Your task to perform on an android device: change notification settings in the gmail app Image 0: 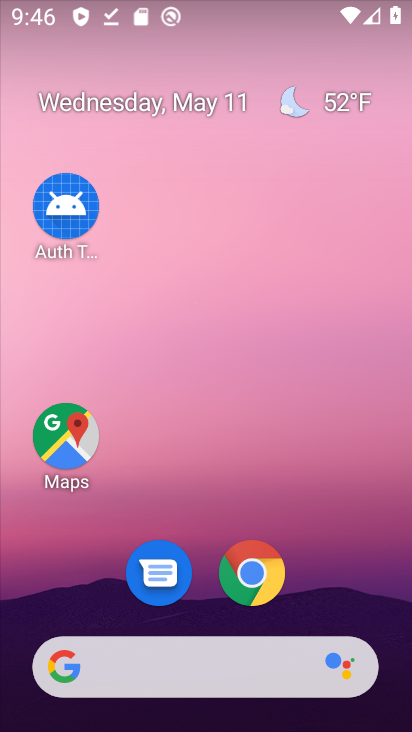
Step 0: drag from (369, 619) to (177, 19)
Your task to perform on an android device: change notification settings in the gmail app Image 1: 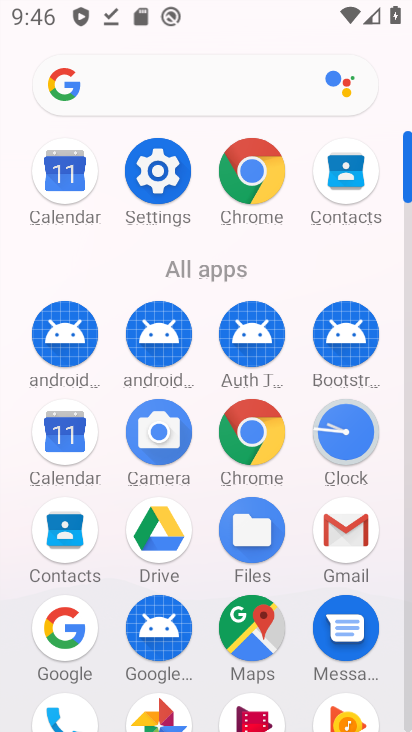
Step 1: click (353, 530)
Your task to perform on an android device: change notification settings in the gmail app Image 2: 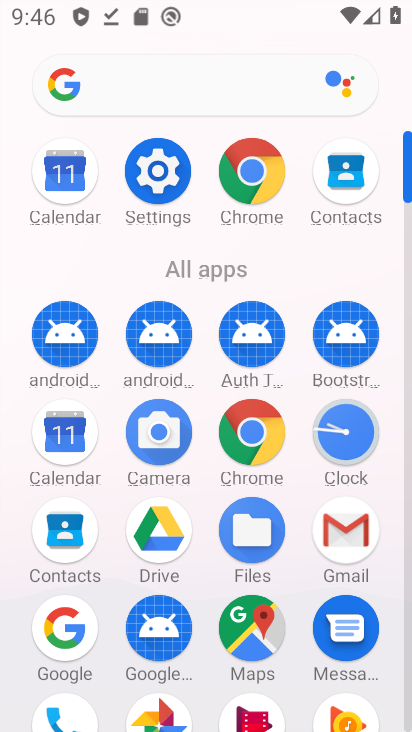
Step 2: click (350, 531)
Your task to perform on an android device: change notification settings in the gmail app Image 3: 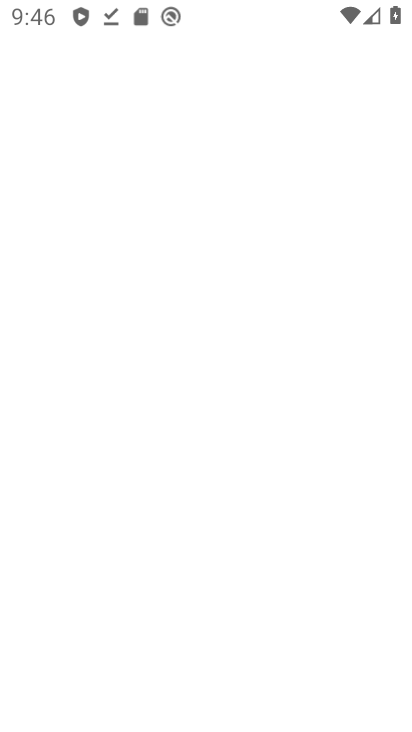
Step 3: click (350, 531)
Your task to perform on an android device: change notification settings in the gmail app Image 4: 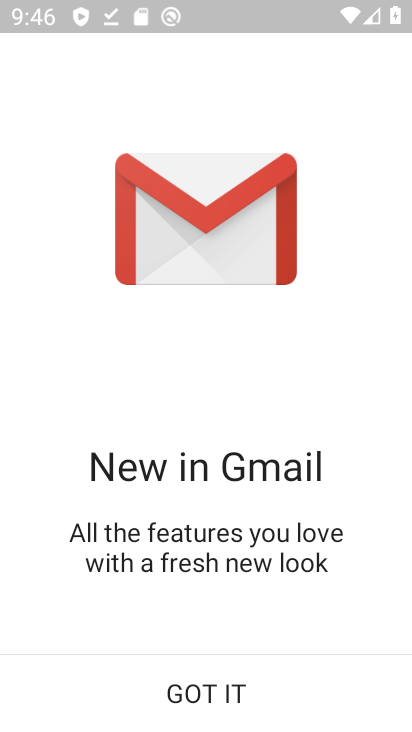
Step 4: click (236, 681)
Your task to perform on an android device: change notification settings in the gmail app Image 5: 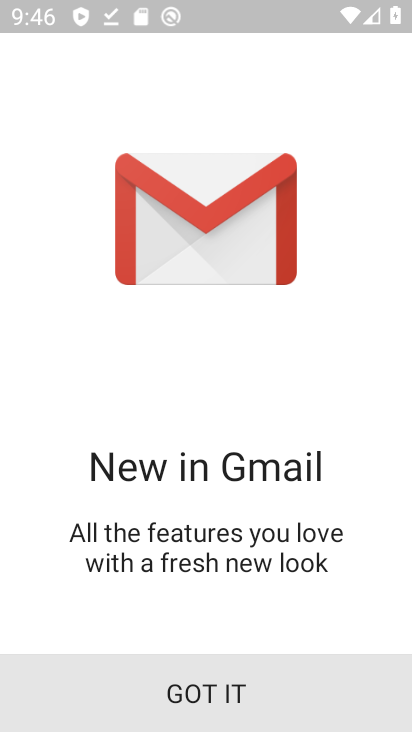
Step 5: click (234, 683)
Your task to perform on an android device: change notification settings in the gmail app Image 6: 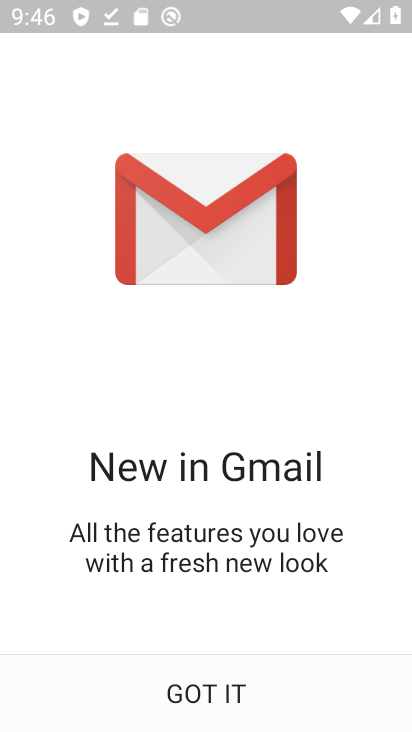
Step 6: click (233, 683)
Your task to perform on an android device: change notification settings in the gmail app Image 7: 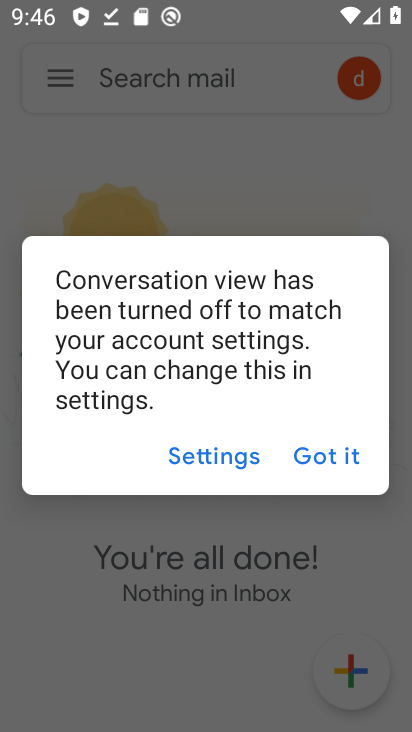
Step 7: click (339, 452)
Your task to perform on an android device: change notification settings in the gmail app Image 8: 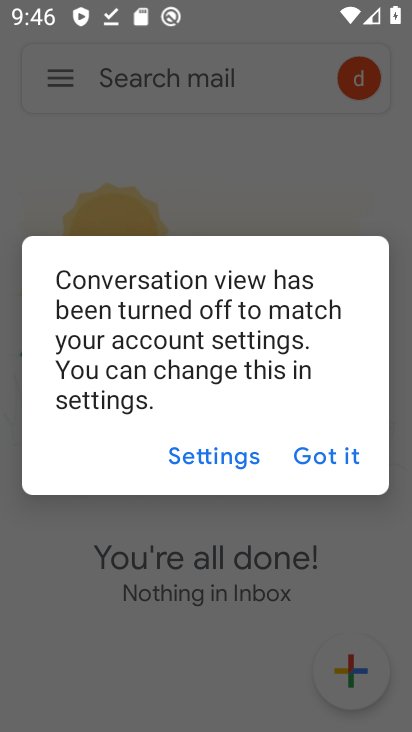
Step 8: click (341, 451)
Your task to perform on an android device: change notification settings in the gmail app Image 9: 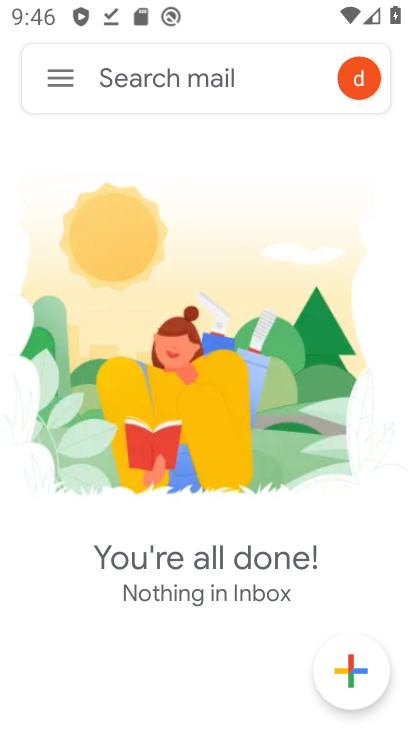
Step 9: click (341, 451)
Your task to perform on an android device: change notification settings in the gmail app Image 10: 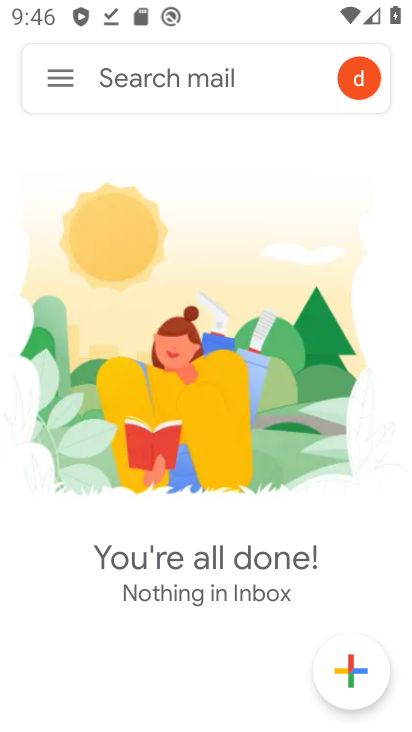
Step 10: click (341, 451)
Your task to perform on an android device: change notification settings in the gmail app Image 11: 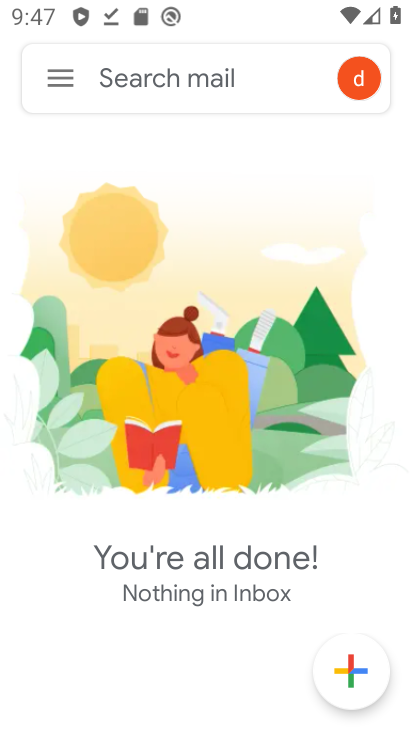
Step 11: click (63, 86)
Your task to perform on an android device: change notification settings in the gmail app Image 12: 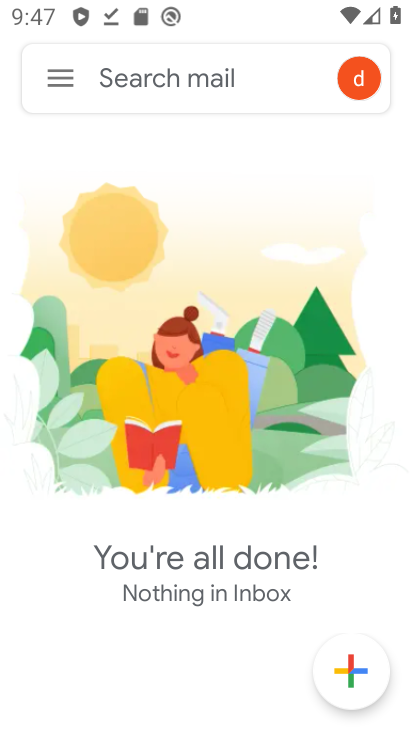
Step 12: click (63, 86)
Your task to perform on an android device: change notification settings in the gmail app Image 13: 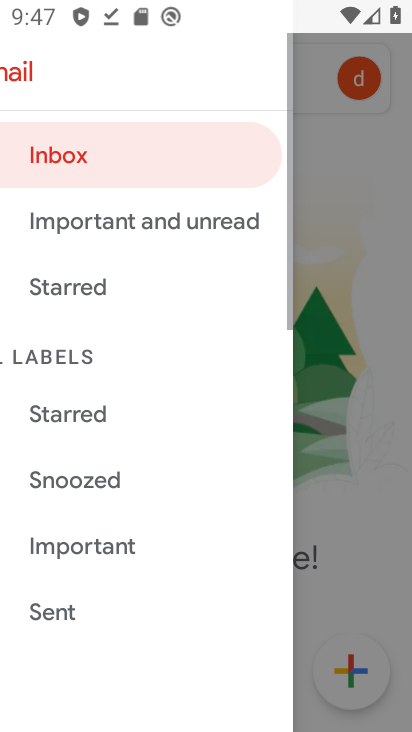
Step 13: click (63, 86)
Your task to perform on an android device: change notification settings in the gmail app Image 14: 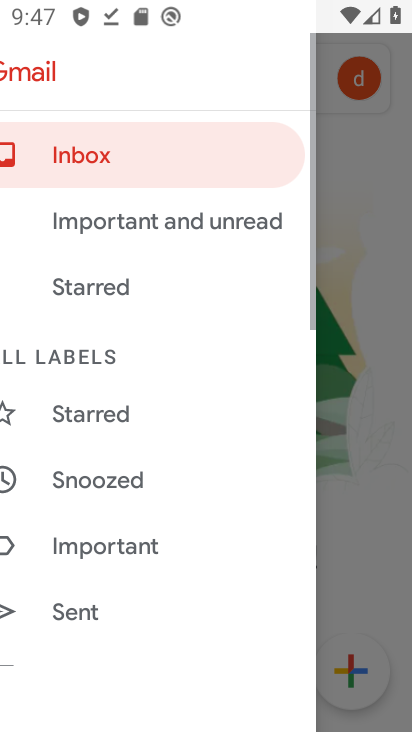
Step 14: click (63, 86)
Your task to perform on an android device: change notification settings in the gmail app Image 15: 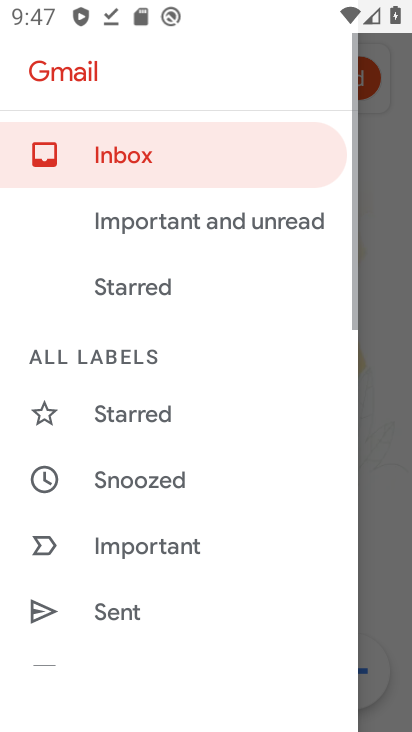
Step 15: click (63, 86)
Your task to perform on an android device: change notification settings in the gmail app Image 16: 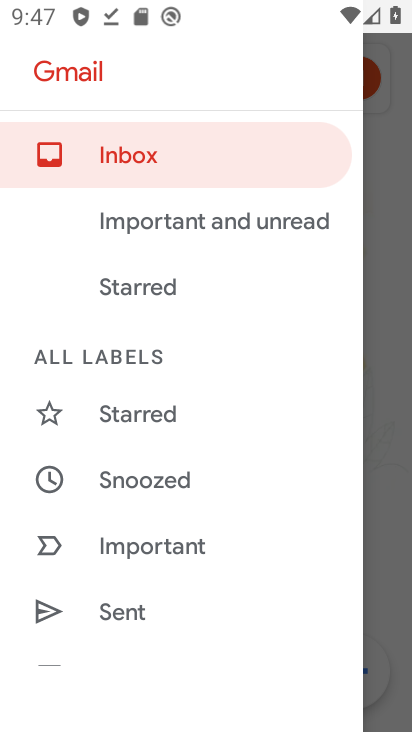
Step 16: drag from (168, 501) to (140, 38)
Your task to perform on an android device: change notification settings in the gmail app Image 17: 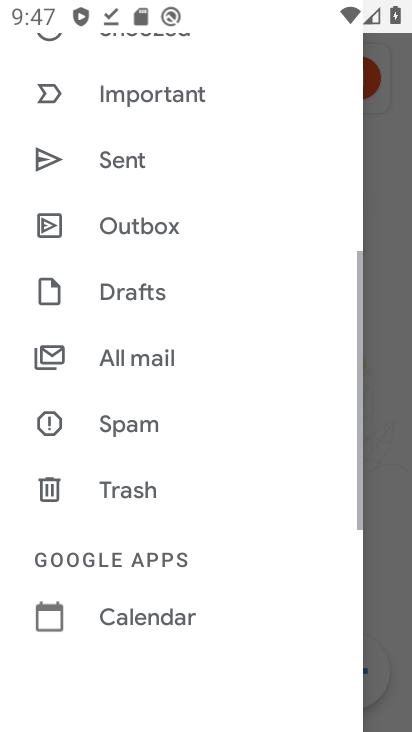
Step 17: drag from (203, 278) to (205, 10)
Your task to perform on an android device: change notification settings in the gmail app Image 18: 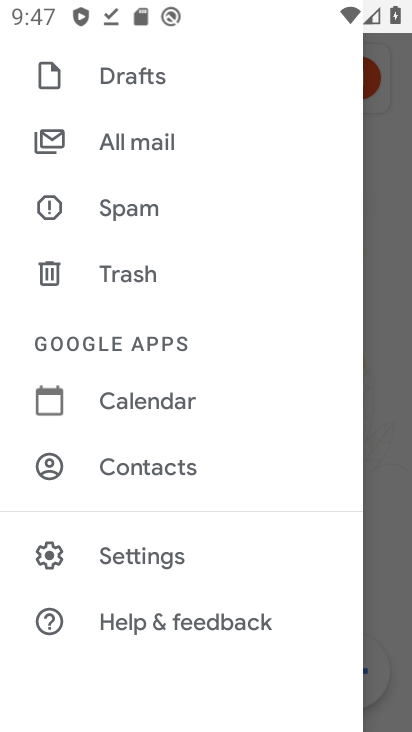
Step 18: click (143, 549)
Your task to perform on an android device: change notification settings in the gmail app Image 19: 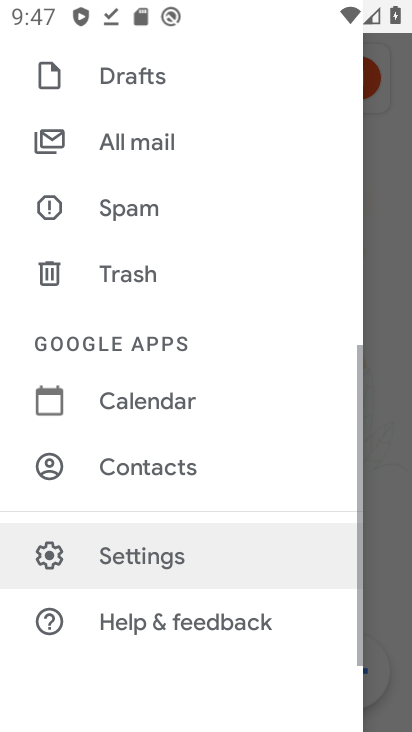
Step 19: click (144, 550)
Your task to perform on an android device: change notification settings in the gmail app Image 20: 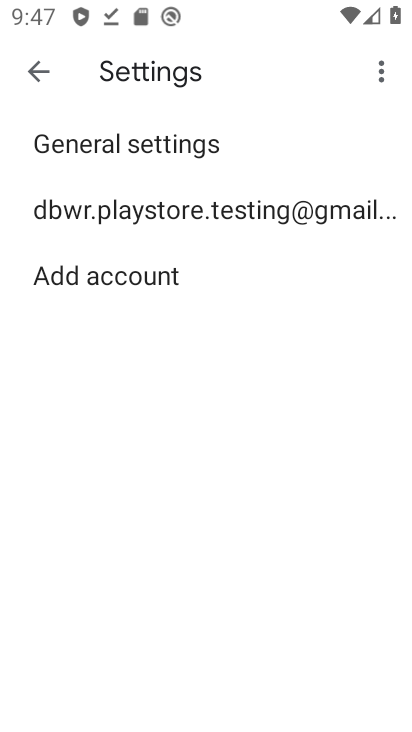
Step 20: click (173, 201)
Your task to perform on an android device: change notification settings in the gmail app Image 21: 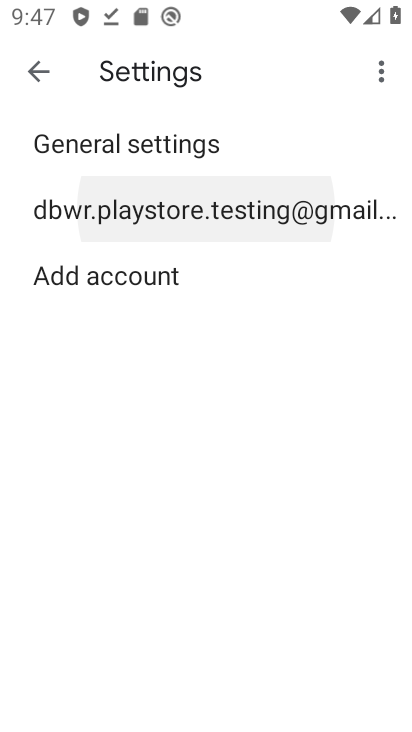
Step 21: click (173, 201)
Your task to perform on an android device: change notification settings in the gmail app Image 22: 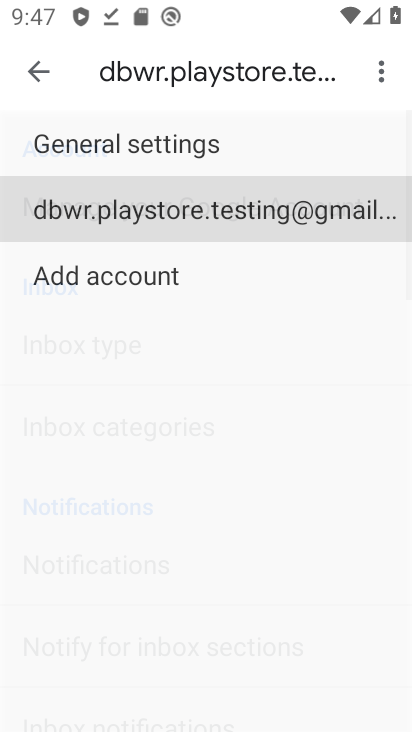
Step 22: click (173, 201)
Your task to perform on an android device: change notification settings in the gmail app Image 23: 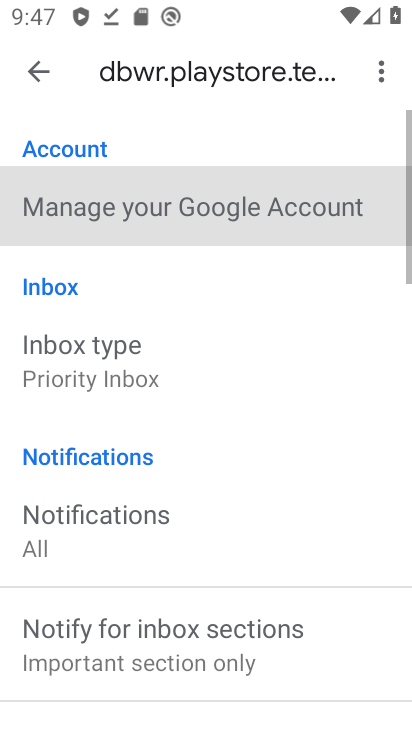
Step 23: click (173, 201)
Your task to perform on an android device: change notification settings in the gmail app Image 24: 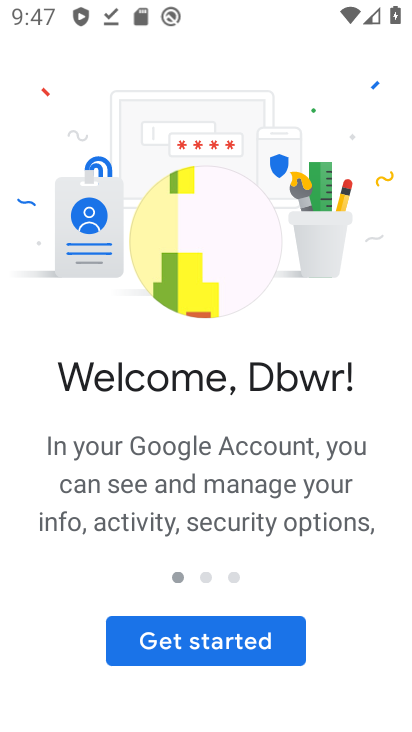
Step 24: click (235, 659)
Your task to perform on an android device: change notification settings in the gmail app Image 25: 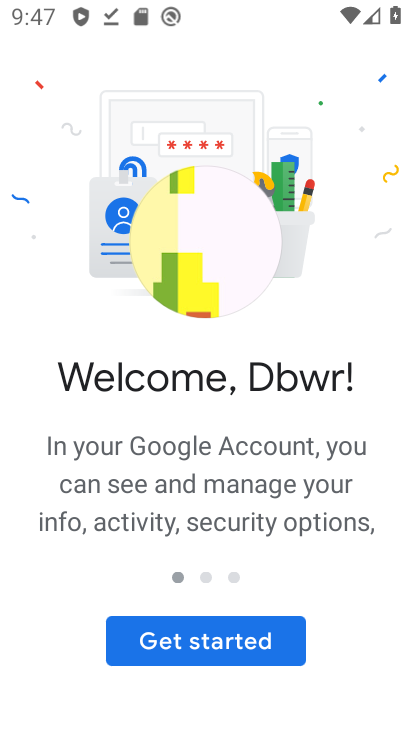
Step 25: click (240, 637)
Your task to perform on an android device: change notification settings in the gmail app Image 26: 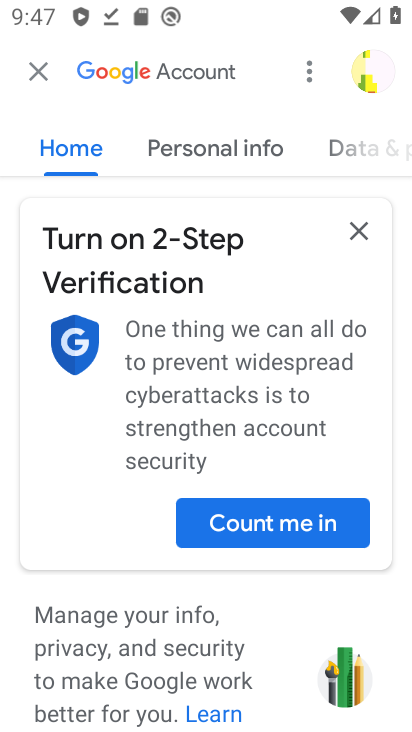
Step 26: click (29, 70)
Your task to perform on an android device: change notification settings in the gmail app Image 27: 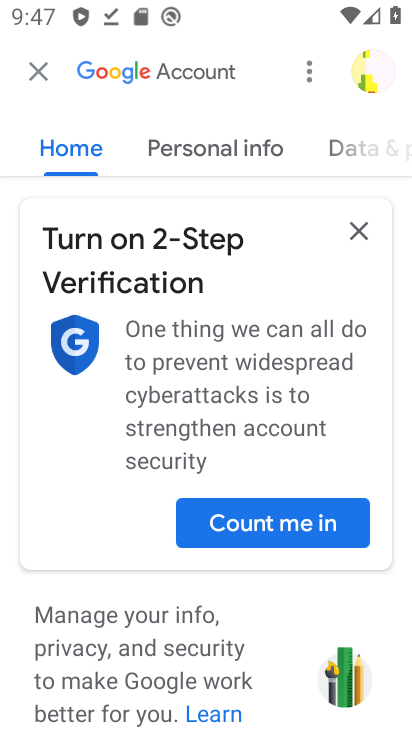
Step 27: click (34, 75)
Your task to perform on an android device: change notification settings in the gmail app Image 28: 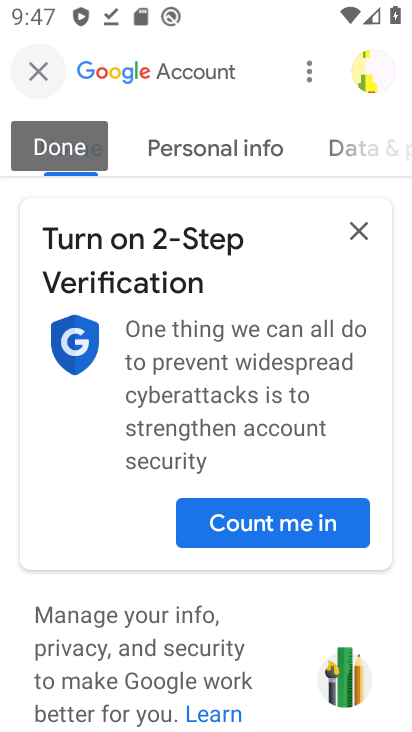
Step 28: click (39, 72)
Your task to perform on an android device: change notification settings in the gmail app Image 29: 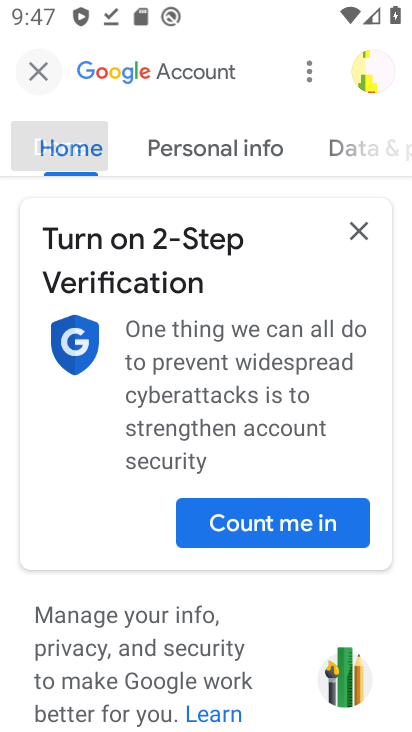
Step 29: click (39, 72)
Your task to perform on an android device: change notification settings in the gmail app Image 30: 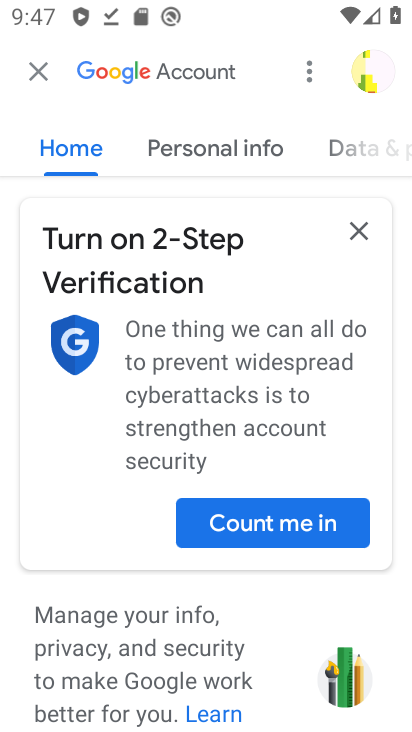
Step 30: click (354, 228)
Your task to perform on an android device: change notification settings in the gmail app Image 31: 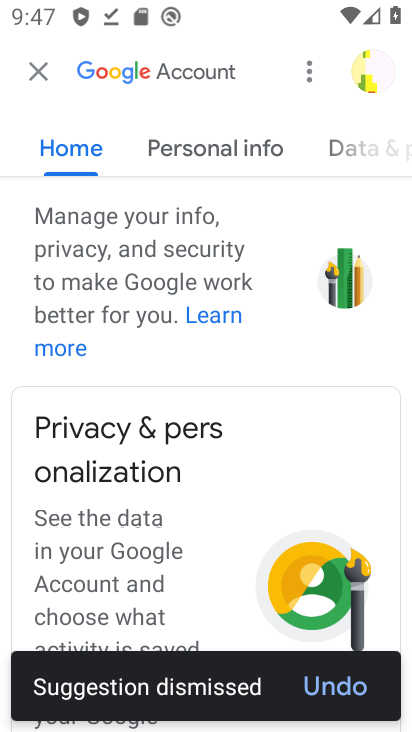
Step 31: press back button
Your task to perform on an android device: change notification settings in the gmail app Image 32: 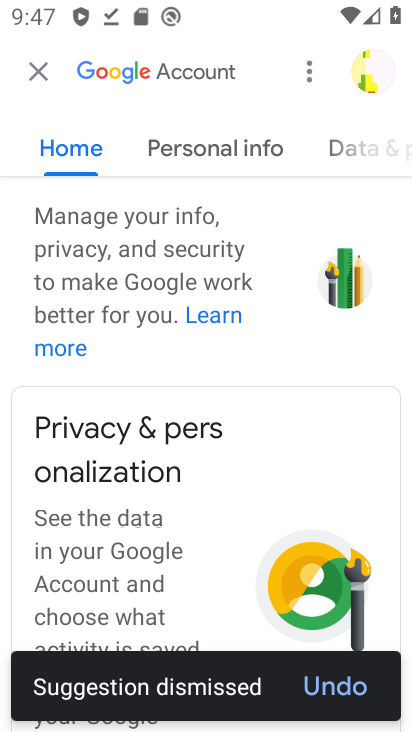
Step 32: press back button
Your task to perform on an android device: change notification settings in the gmail app Image 33: 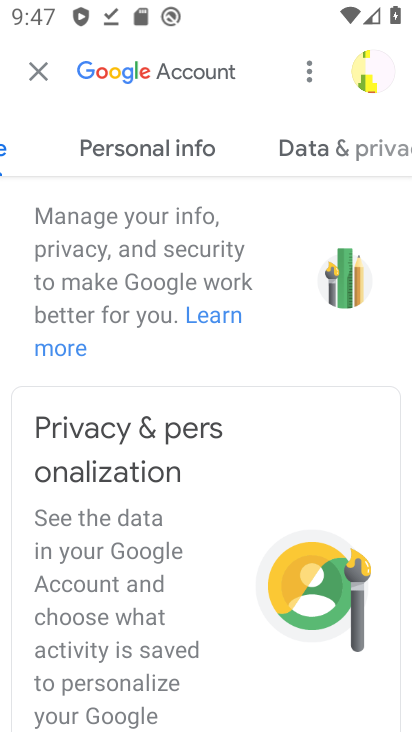
Step 33: press back button
Your task to perform on an android device: change notification settings in the gmail app Image 34: 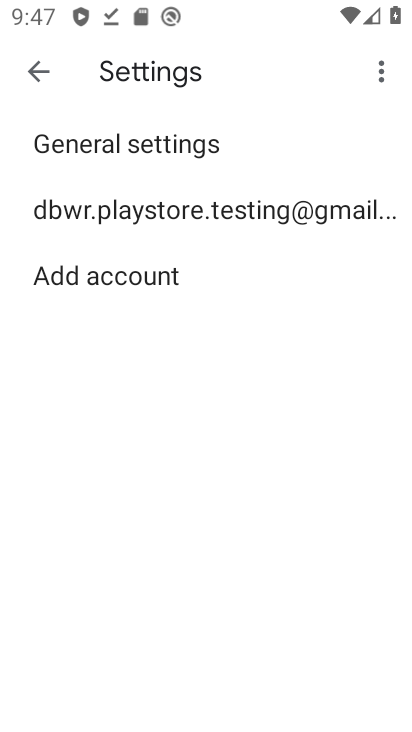
Step 34: press home button
Your task to perform on an android device: change notification settings in the gmail app Image 35: 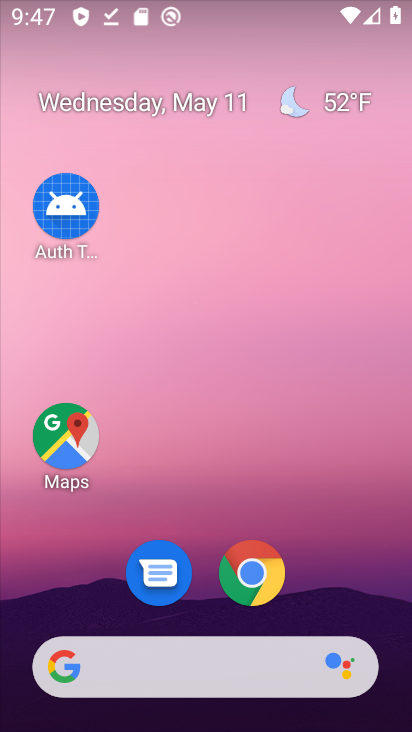
Step 35: drag from (369, 564) to (143, 1)
Your task to perform on an android device: change notification settings in the gmail app Image 36: 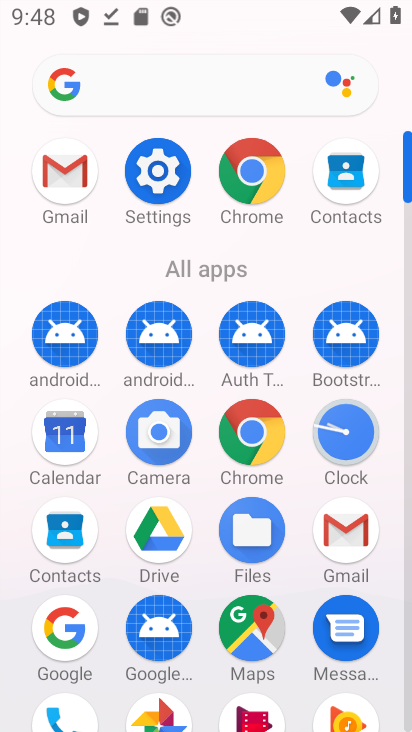
Step 36: click (344, 531)
Your task to perform on an android device: change notification settings in the gmail app Image 37: 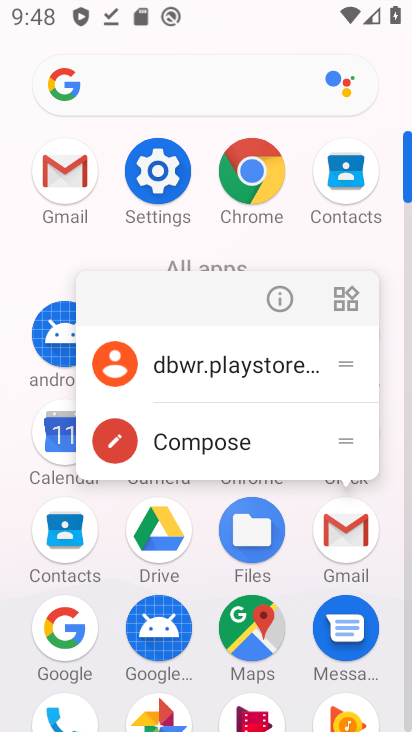
Step 37: click (226, 362)
Your task to perform on an android device: change notification settings in the gmail app Image 38: 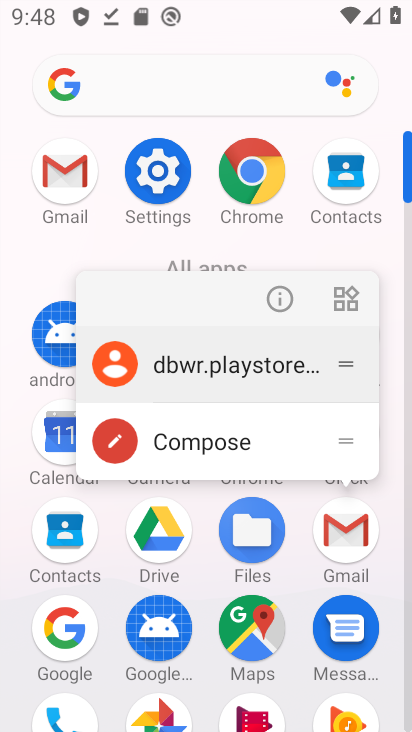
Step 38: click (227, 361)
Your task to perform on an android device: change notification settings in the gmail app Image 39: 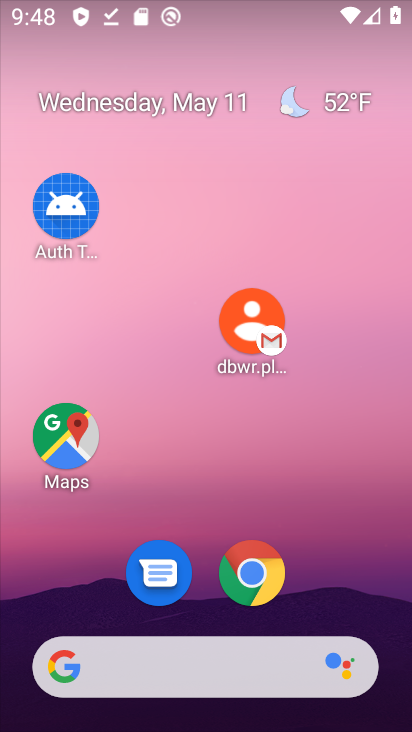
Step 39: drag from (336, 529) to (200, 141)
Your task to perform on an android device: change notification settings in the gmail app Image 40: 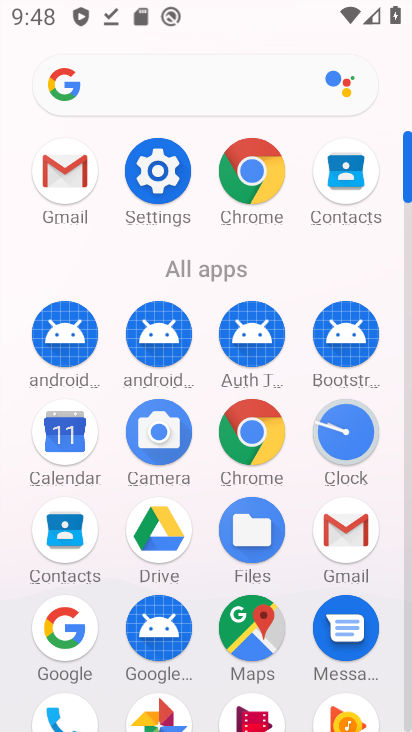
Step 40: drag from (290, 516) to (143, 137)
Your task to perform on an android device: change notification settings in the gmail app Image 41: 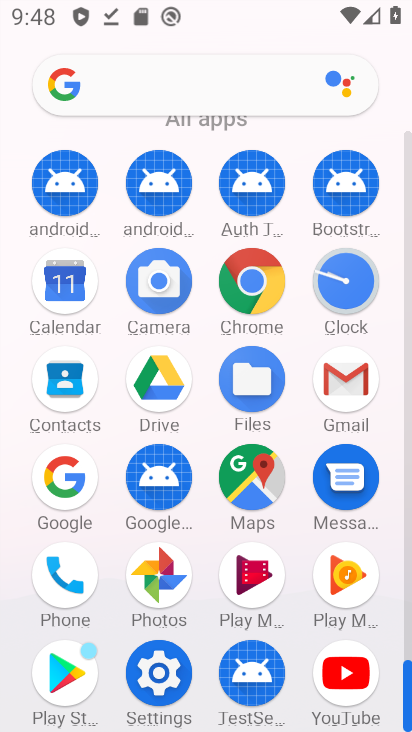
Step 41: click (332, 384)
Your task to perform on an android device: change notification settings in the gmail app Image 42: 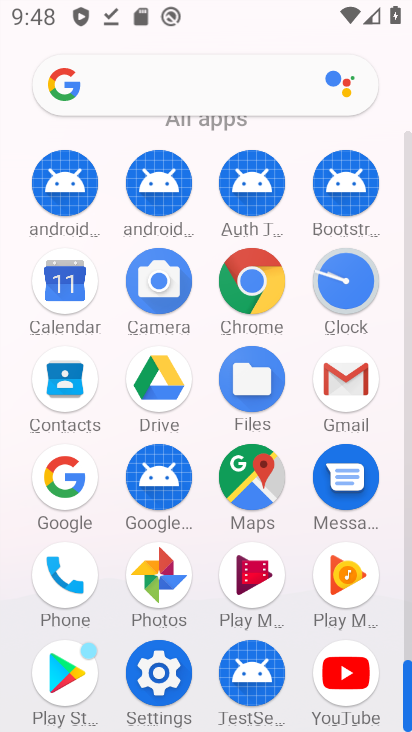
Step 42: click (332, 384)
Your task to perform on an android device: change notification settings in the gmail app Image 43: 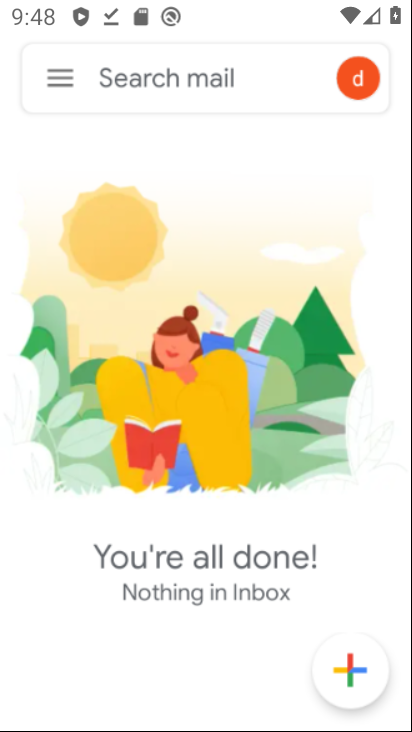
Step 43: click (332, 385)
Your task to perform on an android device: change notification settings in the gmail app Image 44: 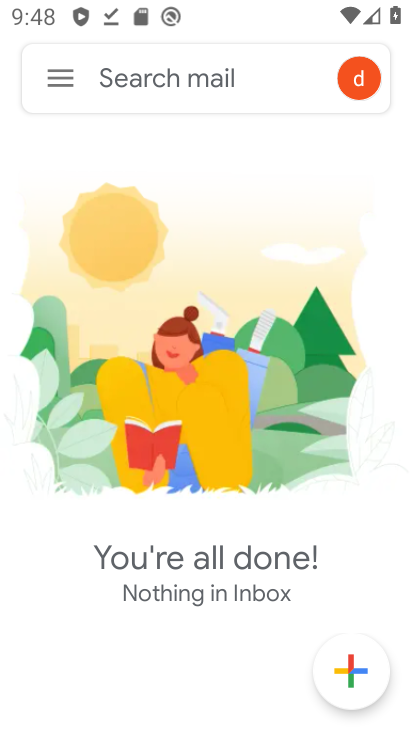
Step 44: click (67, 75)
Your task to perform on an android device: change notification settings in the gmail app Image 45: 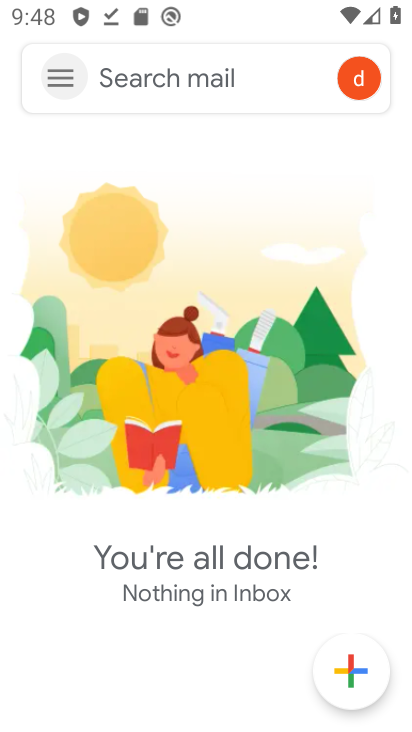
Step 45: click (67, 75)
Your task to perform on an android device: change notification settings in the gmail app Image 46: 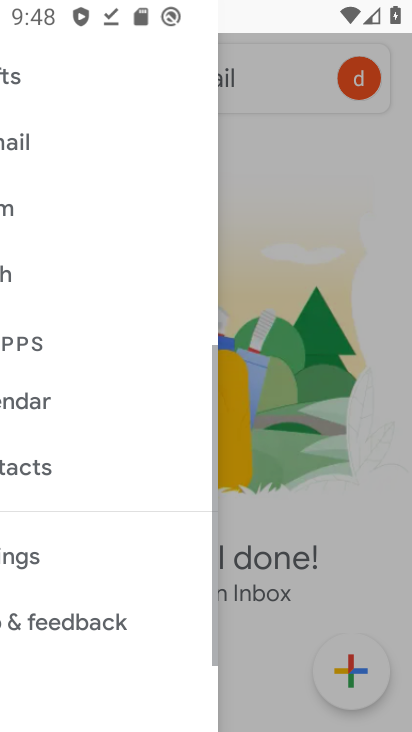
Step 46: click (67, 75)
Your task to perform on an android device: change notification settings in the gmail app Image 47: 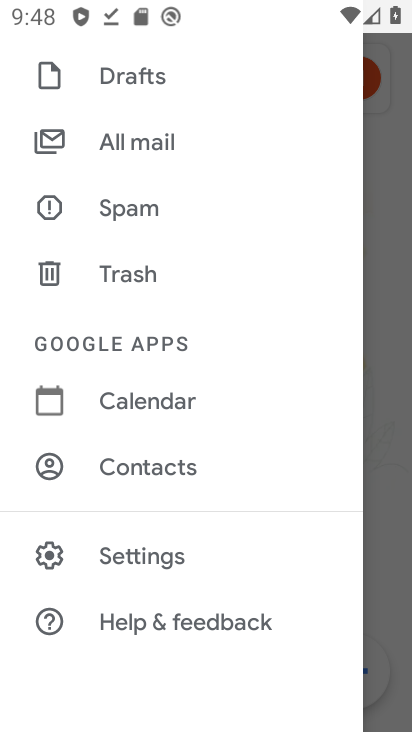
Step 47: click (146, 547)
Your task to perform on an android device: change notification settings in the gmail app Image 48: 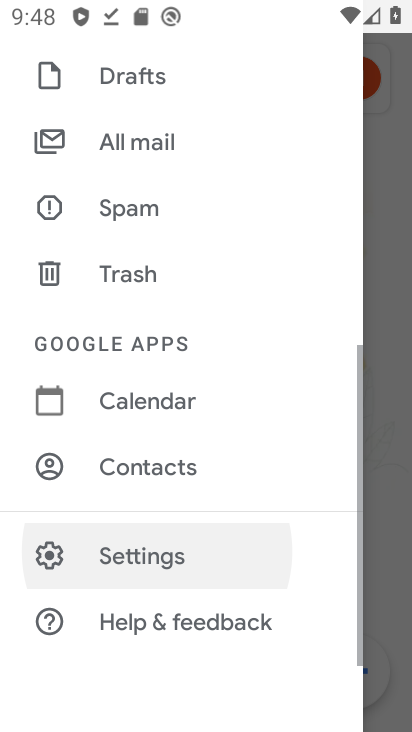
Step 48: click (146, 556)
Your task to perform on an android device: change notification settings in the gmail app Image 49: 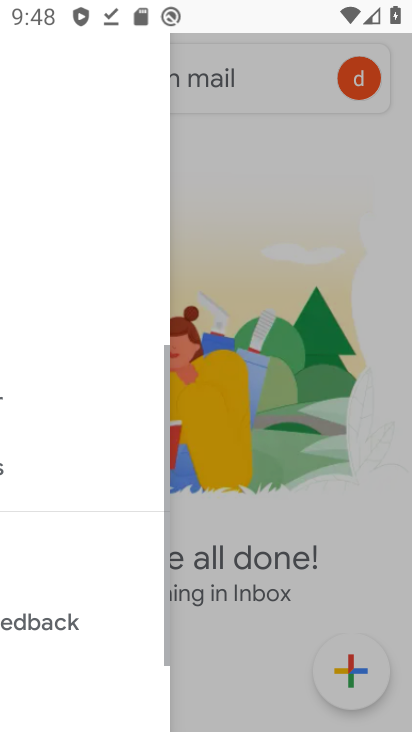
Step 49: click (146, 556)
Your task to perform on an android device: change notification settings in the gmail app Image 50: 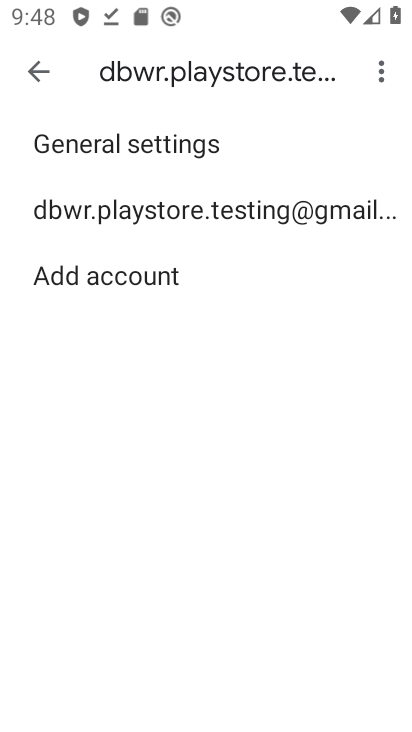
Step 50: click (159, 200)
Your task to perform on an android device: change notification settings in the gmail app Image 51: 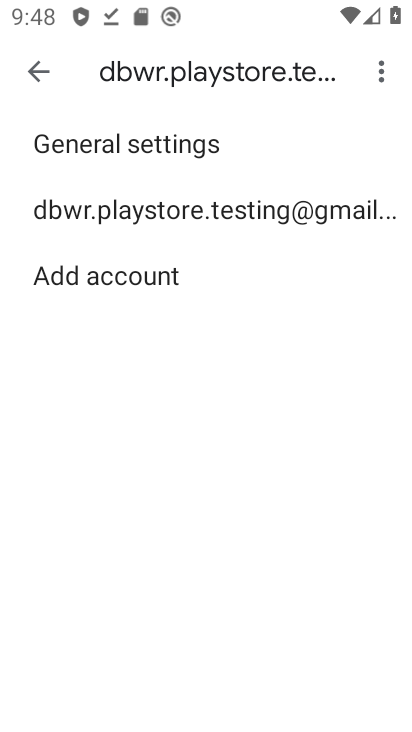
Step 51: click (160, 201)
Your task to perform on an android device: change notification settings in the gmail app Image 52: 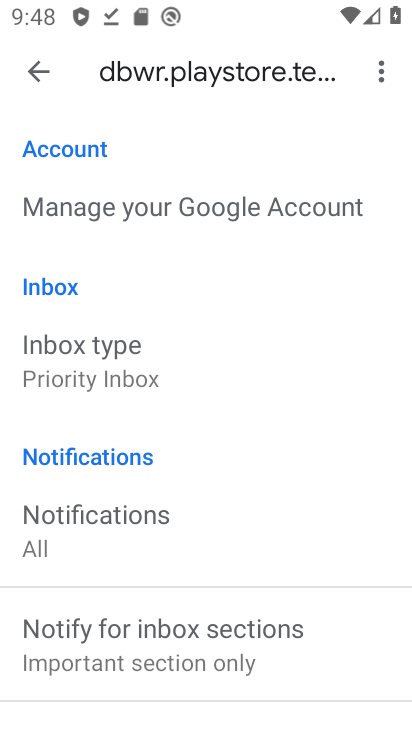
Step 52: drag from (135, 490) to (132, 96)
Your task to perform on an android device: change notification settings in the gmail app Image 53: 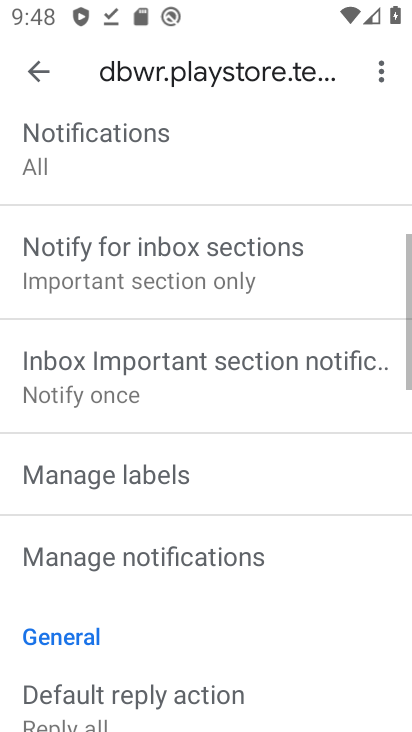
Step 53: drag from (187, 333) to (184, 173)
Your task to perform on an android device: change notification settings in the gmail app Image 54: 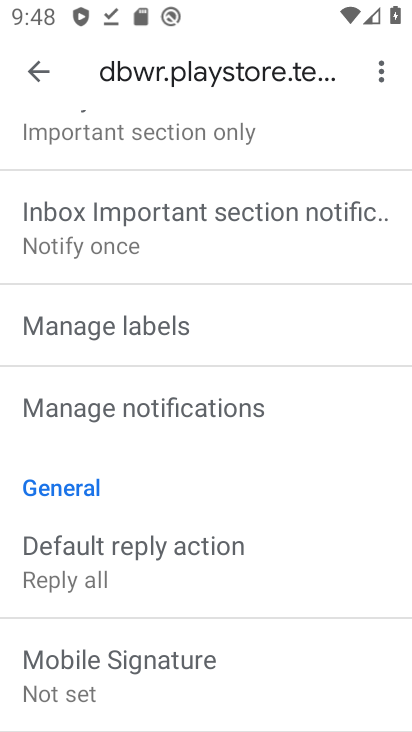
Step 54: drag from (120, 237) to (124, 700)
Your task to perform on an android device: change notification settings in the gmail app Image 55: 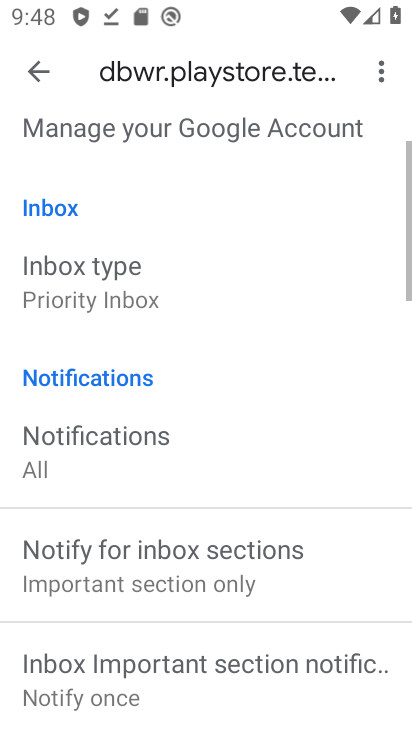
Step 55: drag from (136, 382) to (147, 671)
Your task to perform on an android device: change notification settings in the gmail app Image 56: 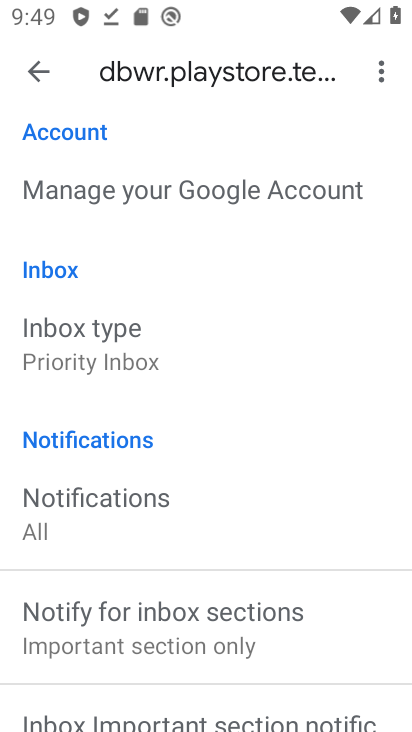
Step 56: drag from (181, 398) to (179, 79)
Your task to perform on an android device: change notification settings in the gmail app Image 57: 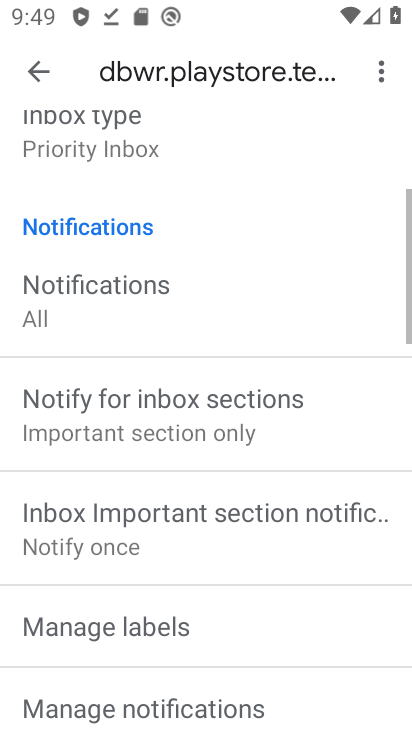
Step 57: drag from (215, 246) to (134, 76)
Your task to perform on an android device: change notification settings in the gmail app Image 58: 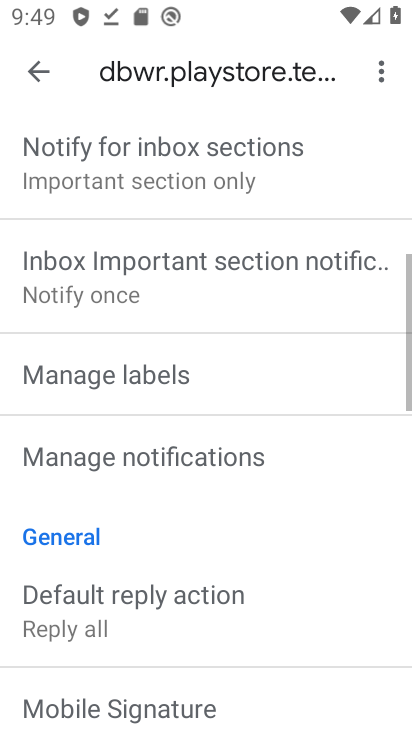
Step 58: drag from (165, 427) to (136, 86)
Your task to perform on an android device: change notification settings in the gmail app Image 59: 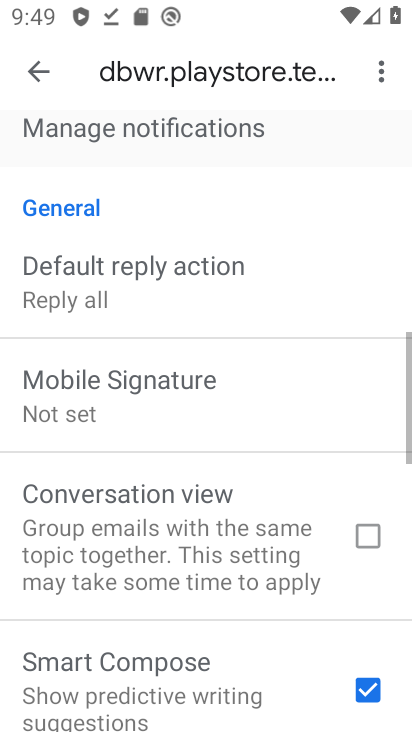
Step 59: drag from (147, 427) to (151, 59)
Your task to perform on an android device: change notification settings in the gmail app Image 60: 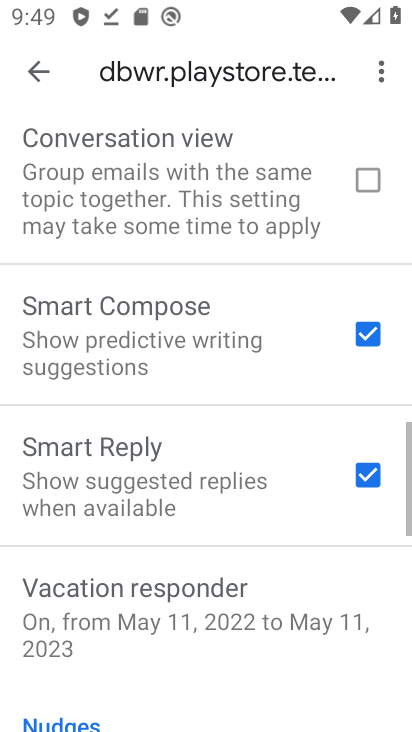
Step 60: drag from (154, 197) to (166, 573)
Your task to perform on an android device: change notification settings in the gmail app Image 61: 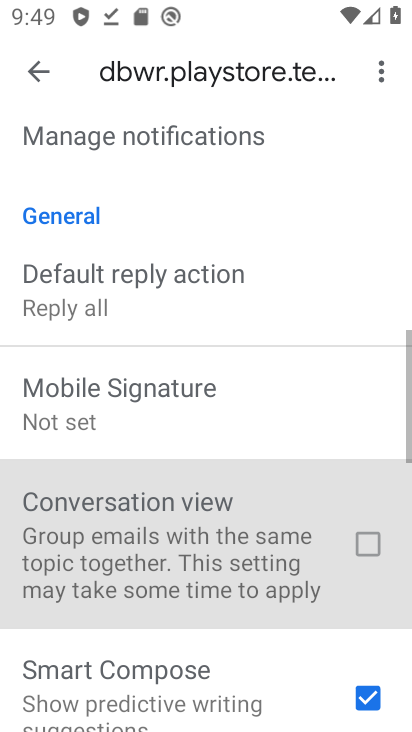
Step 61: drag from (130, 352) to (167, 542)
Your task to perform on an android device: change notification settings in the gmail app Image 62: 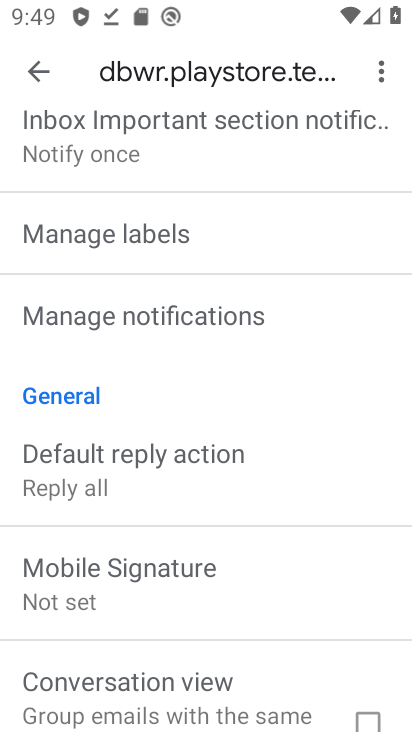
Step 62: drag from (131, 220) to (187, 498)
Your task to perform on an android device: change notification settings in the gmail app Image 63: 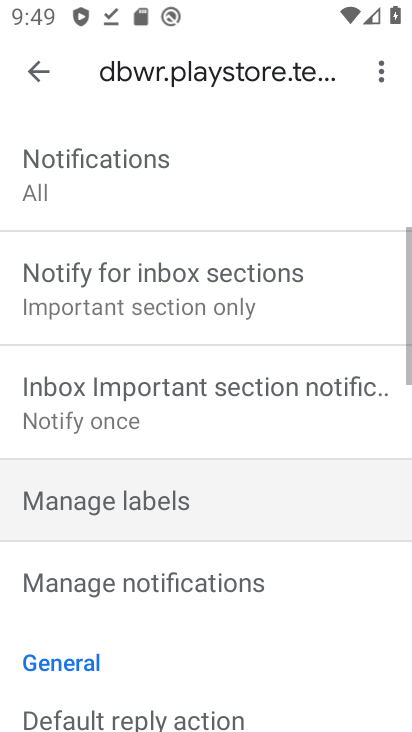
Step 63: drag from (170, 272) to (217, 500)
Your task to perform on an android device: change notification settings in the gmail app Image 64: 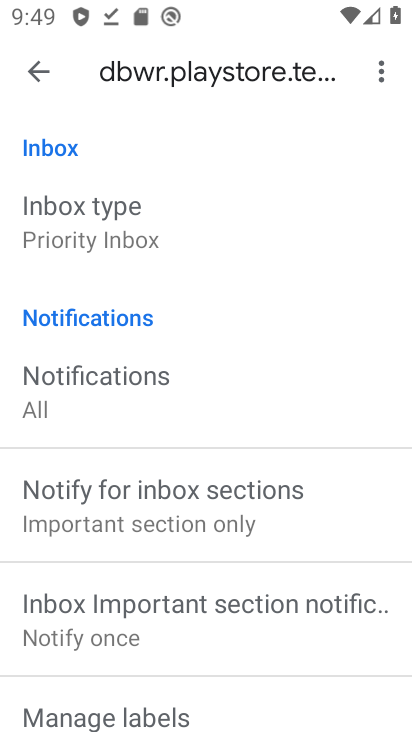
Step 64: drag from (134, 467) to (152, 109)
Your task to perform on an android device: change notification settings in the gmail app Image 65: 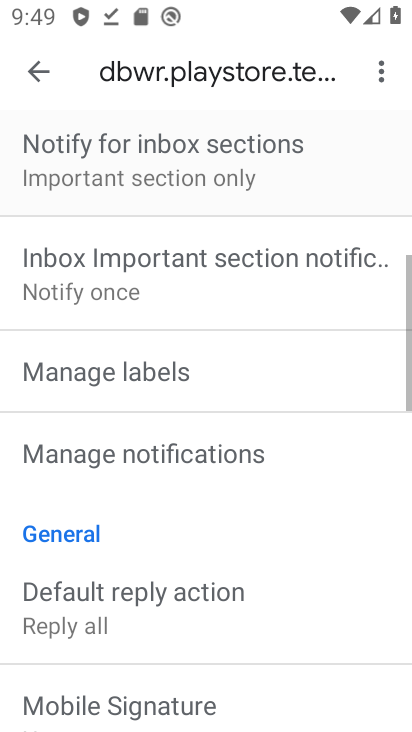
Step 65: drag from (189, 458) to (134, 137)
Your task to perform on an android device: change notification settings in the gmail app Image 66: 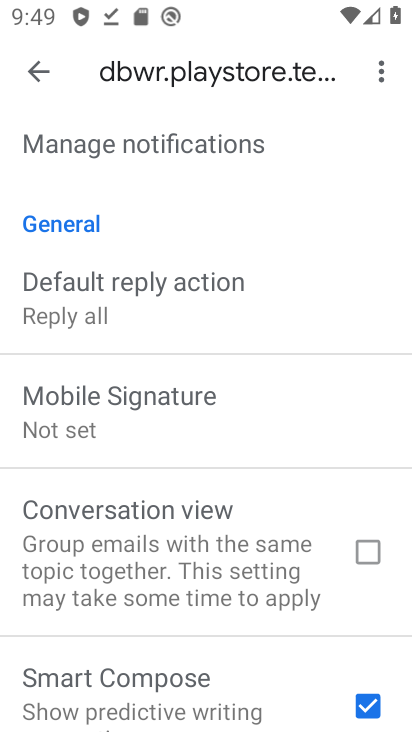
Step 66: drag from (70, 160) to (86, 478)
Your task to perform on an android device: change notification settings in the gmail app Image 67: 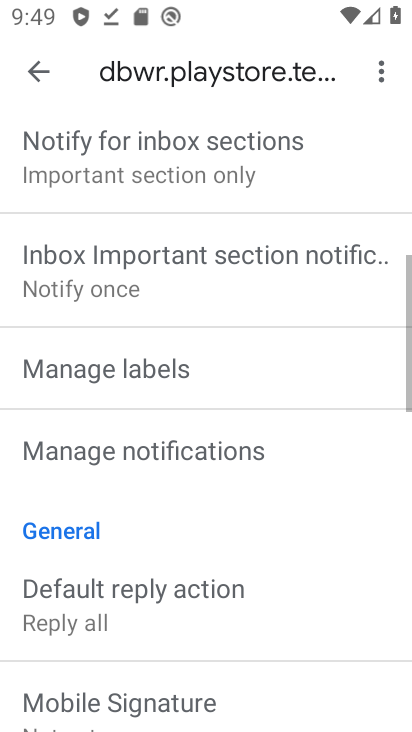
Step 67: drag from (42, 256) to (72, 517)
Your task to perform on an android device: change notification settings in the gmail app Image 68: 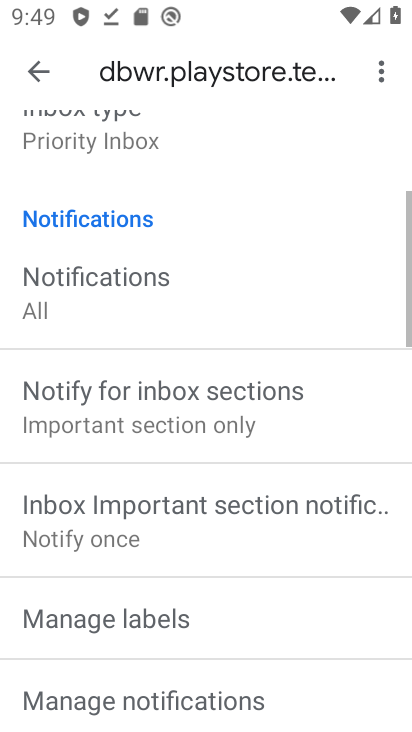
Step 68: drag from (69, 296) to (114, 559)
Your task to perform on an android device: change notification settings in the gmail app Image 69: 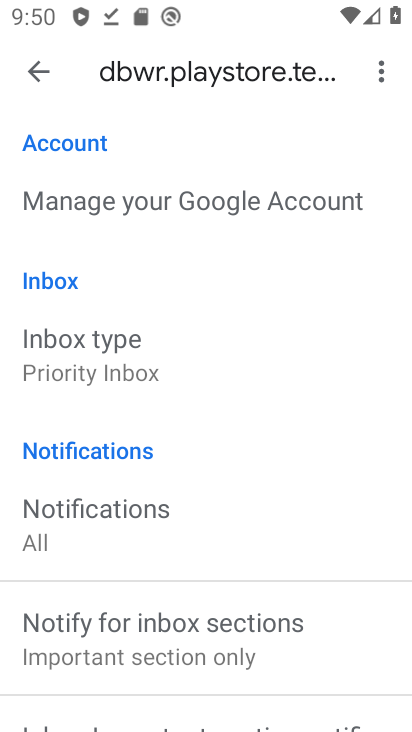
Step 69: click (103, 502)
Your task to perform on an android device: change notification settings in the gmail app Image 70: 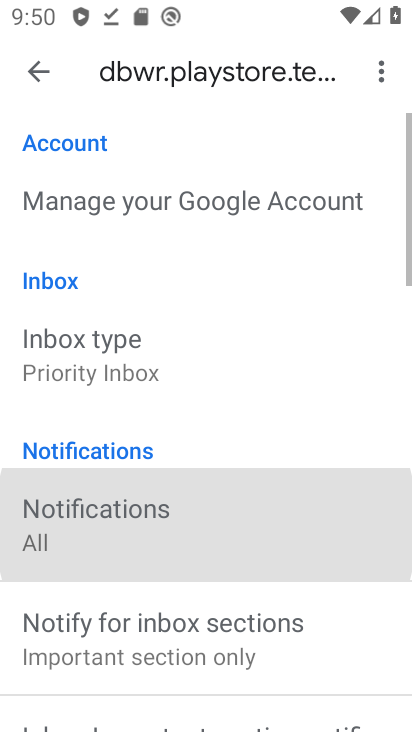
Step 70: click (104, 505)
Your task to perform on an android device: change notification settings in the gmail app Image 71: 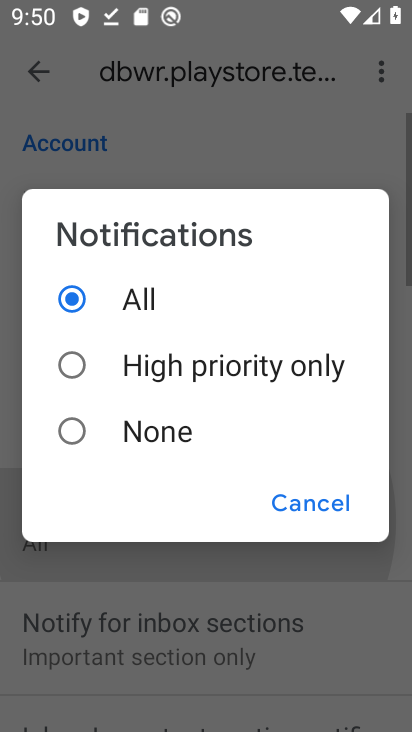
Step 71: click (106, 503)
Your task to perform on an android device: change notification settings in the gmail app Image 72: 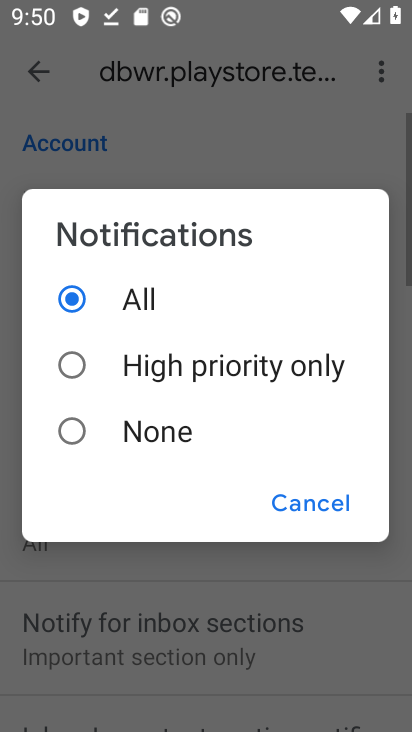
Step 72: click (106, 503)
Your task to perform on an android device: change notification settings in the gmail app Image 73: 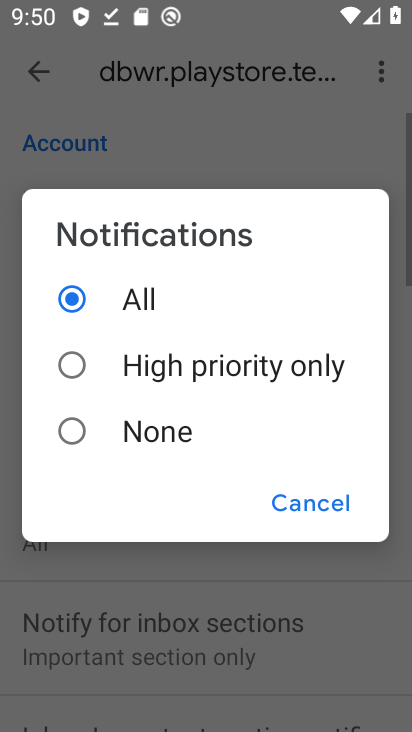
Step 73: click (108, 506)
Your task to perform on an android device: change notification settings in the gmail app Image 74: 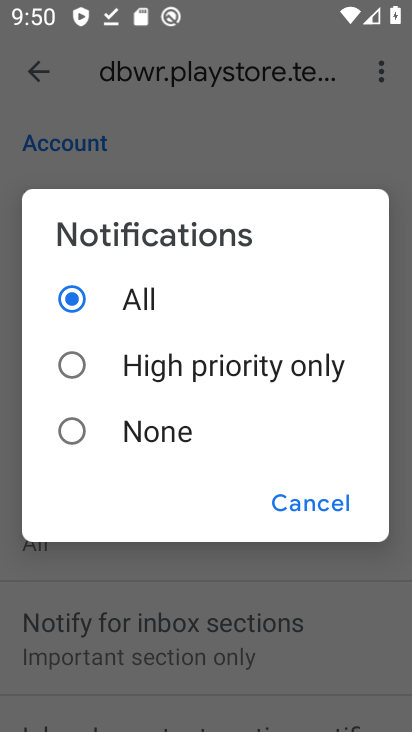
Step 74: click (74, 431)
Your task to perform on an android device: change notification settings in the gmail app Image 75: 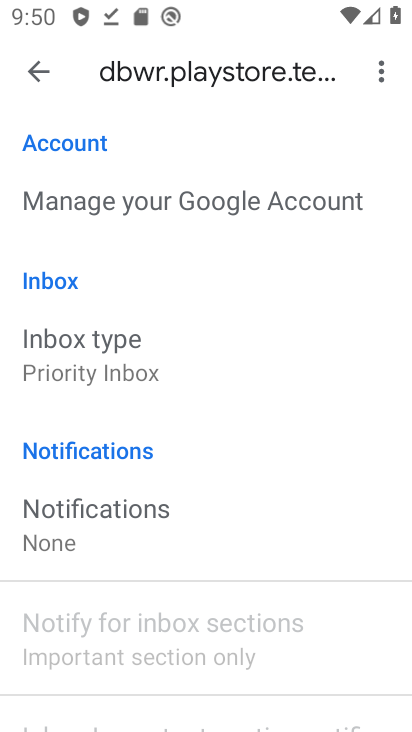
Step 75: task complete